Your task to perform on an android device: Open maps Image 0: 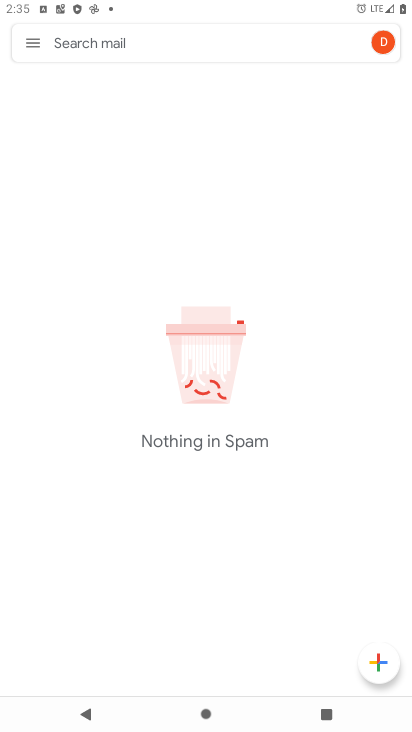
Step 0: press home button
Your task to perform on an android device: Open maps Image 1: 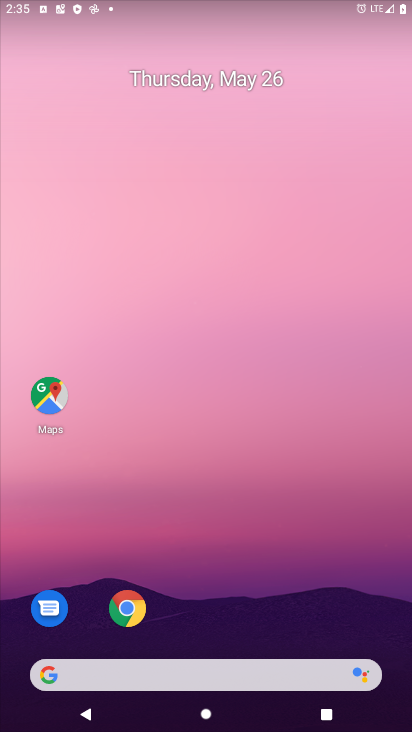
Step 1: click (51, 395)
Your task to perform on an android device: Open maps Image 2: 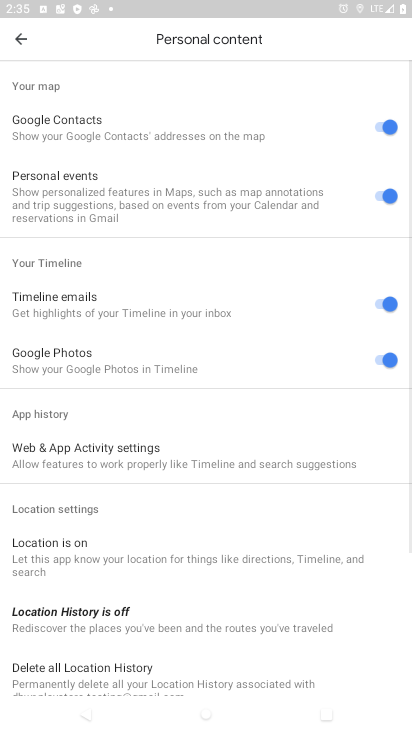
Step 2: task complete